Your task to perform on an android device: turn on improve location accuracy Image 0: 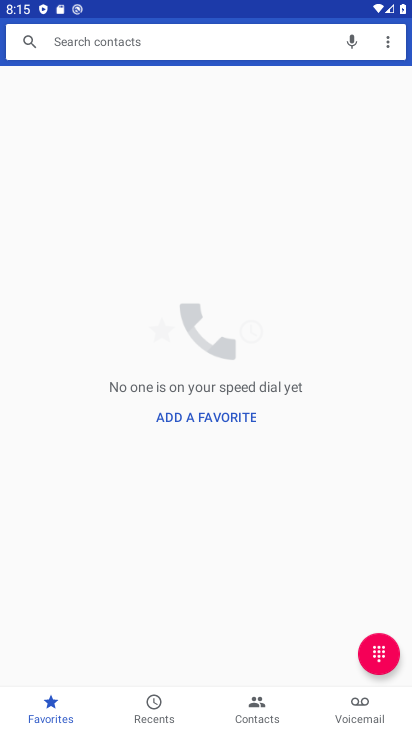
Step 0: press home button
Your task to perform on an android device: turn on improve location accuracy Image 1: 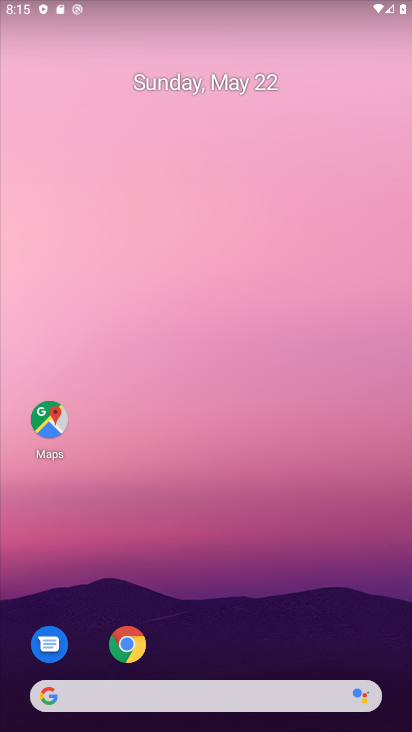
Step 1: drag from (217, 690) to (196, 274)
Your task to perform on an android device: turn on improve location accuracy Image 2: 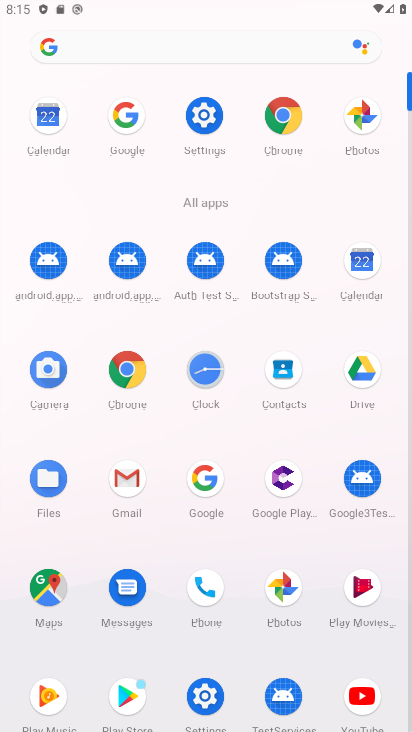
Step 2: click (195, 125)
Your task to perform on an android device: turn on improve location accuracy Image 3: 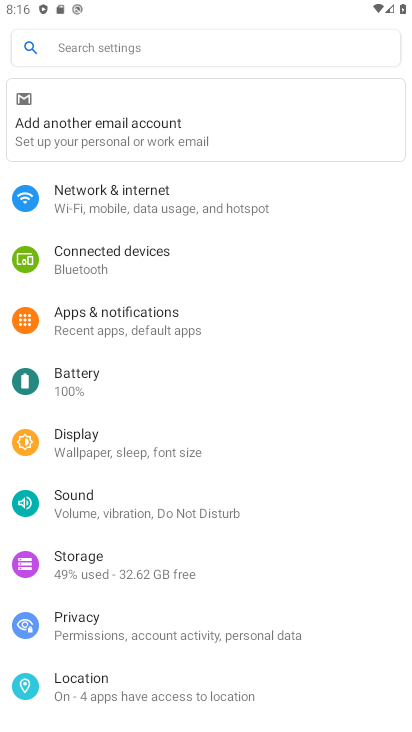
Step 3: click (101, 677)
Your task to perform on an android device: turn on improve location accuracy Image 4: 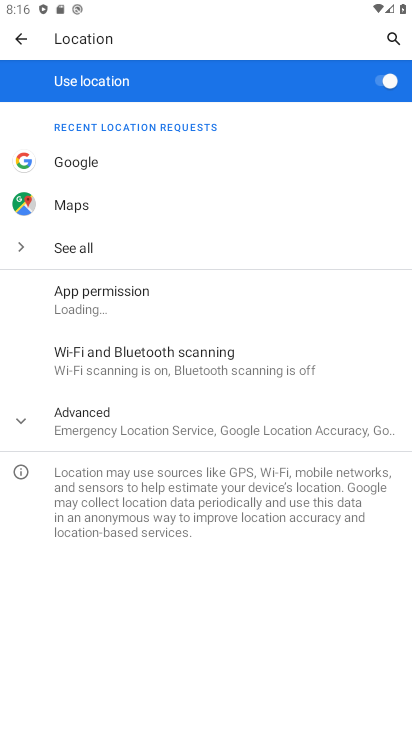
Step 4: click (89, 424)
Your task to perform on an android device: turn on improve location accuracy Image 5: 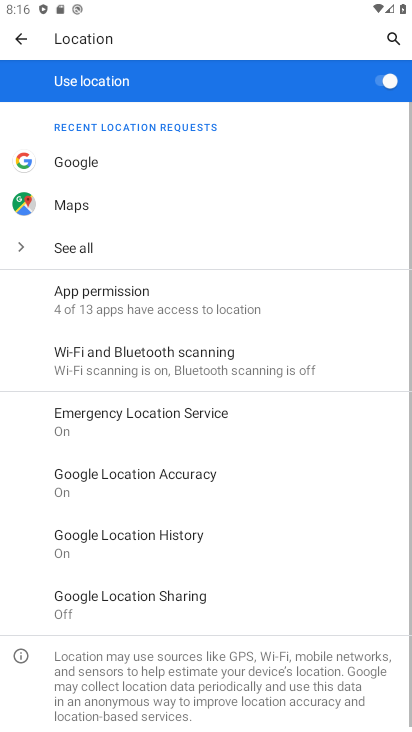
Step 5: click (149, 477)
Your task to perform on an android device: turn on improve location accuracy Image 6: 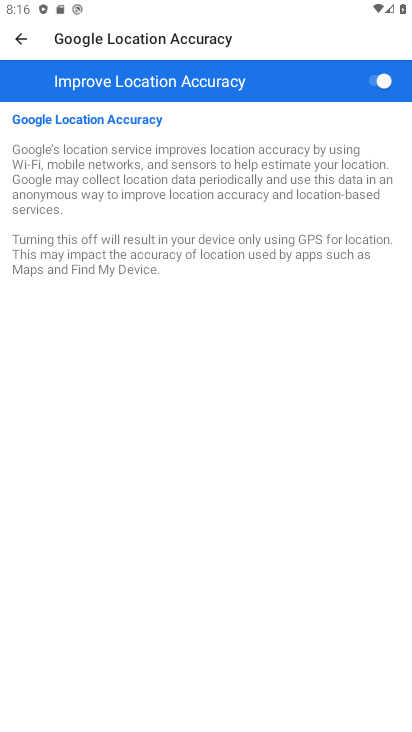
Step 6: task complete